Your task to perform on an android device: check storage Image 0: 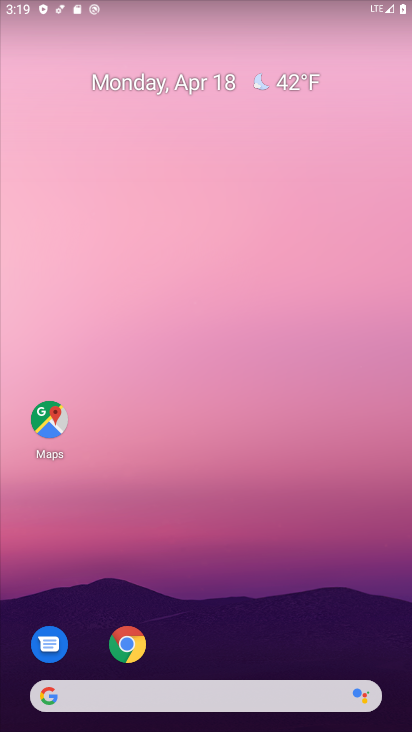
Step 0: drag from (234, 674) to (239, 260)
Your task to perform on an android device: check storage Image 1: 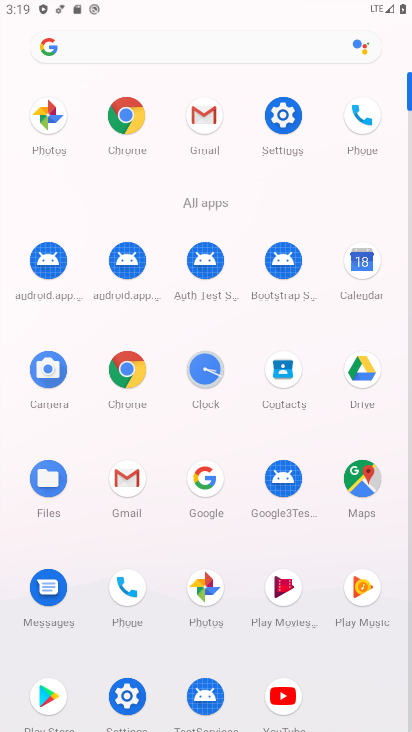
Step 1: click (281, 117)
Your task to perform on an android device: check storage Image 2: 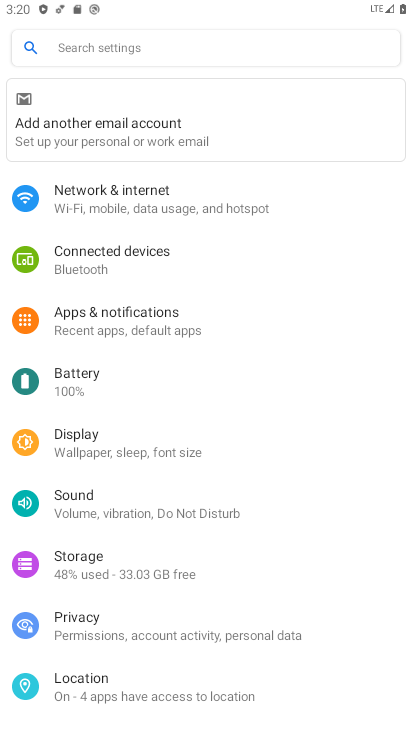
Step 2: click (110, 568)
Your task to perform on an android device: check storage Image 3: 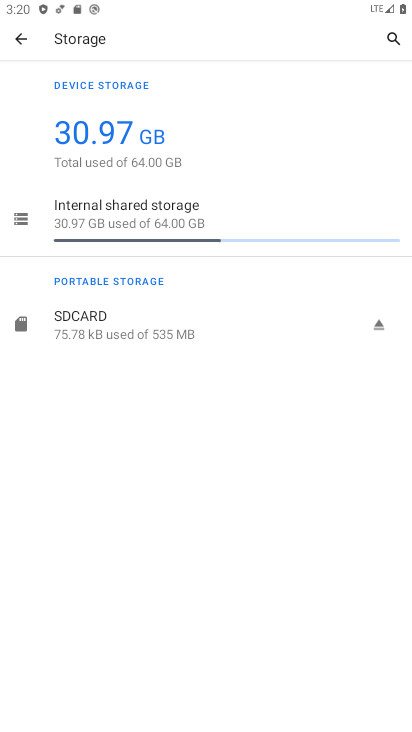
Step 3: task complete